Your task to perform on an android device: turn on bluetooth scan Image 0: 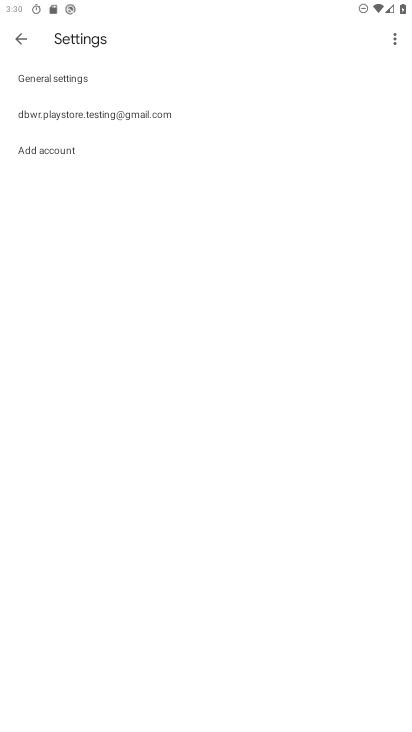
Step 0: press home button
Your task to perform on an android device: turn on bluetooth scan Image 1: 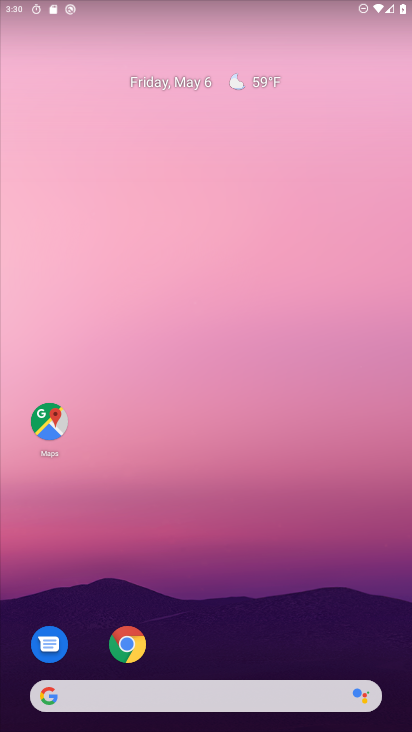
Step 1: drag from (235, 728) to (233, 245)
Your task to perform on an android device: turn on bluetooth scan Image 2: 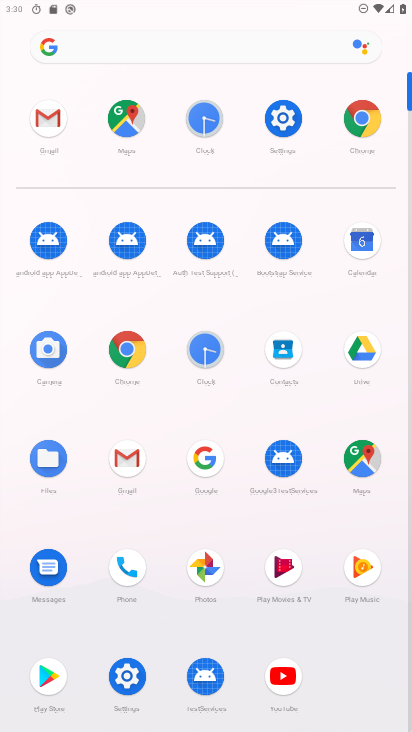
Step 2: click (285, 115)
Your task to perform on an android device: turn on bluetooth scan Image 3: 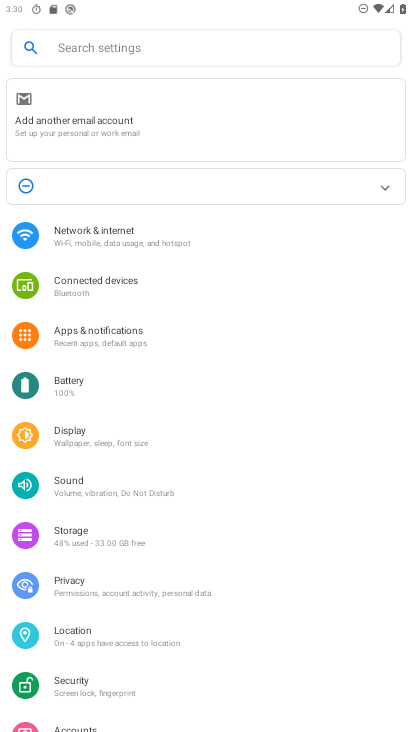
Step 3: click (113, 640)
Your task to perform on an android device: turn on bluetooth scan Image 4: 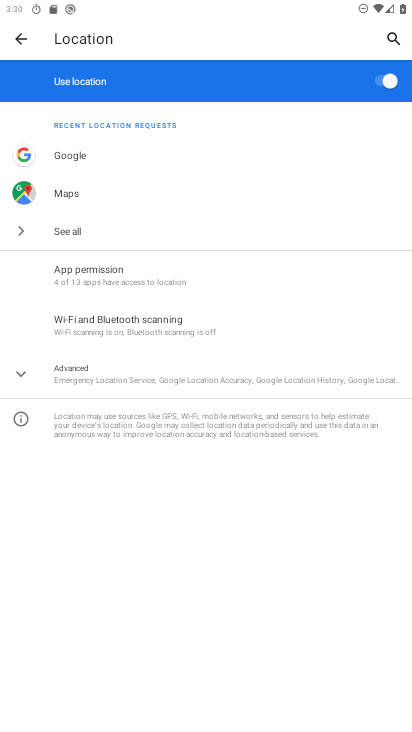
Step 4: click (143, 316)
Your task to perform on an android device: turn on bluetooth scan Image 5: 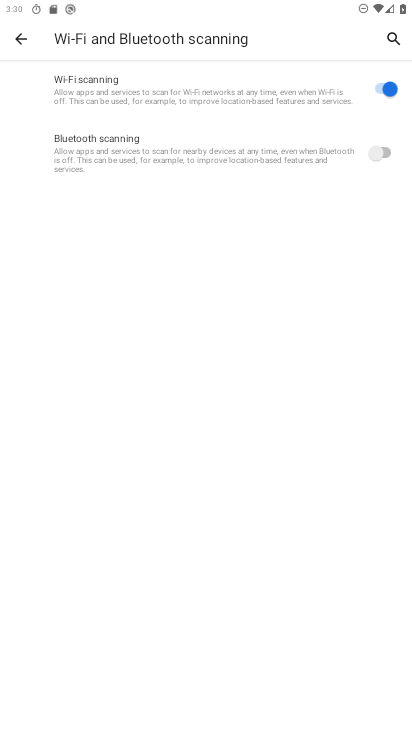
Step 5: click (384, 151)
Your task to perform on an android device: turn on bluetooth scan Image 6: 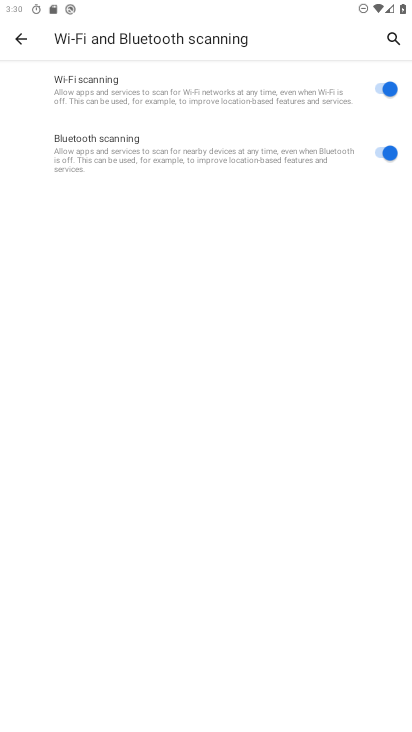
Step 6: task complete